Your task to perform on an android device: Go to notification settings Image 0: 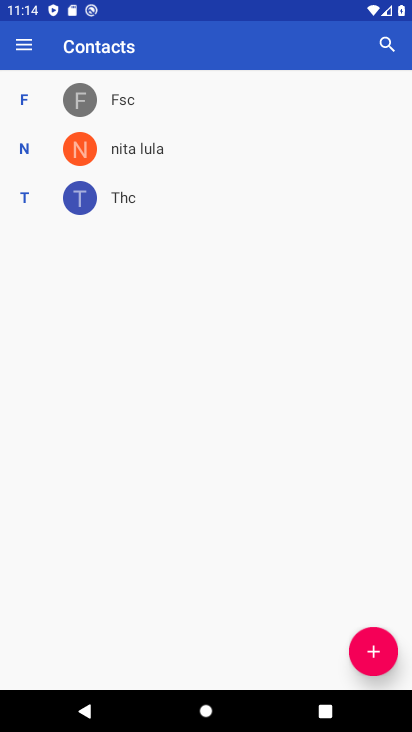
Step 0: press home button
Your task to perform on an android device: Go to notification settings Image 1: 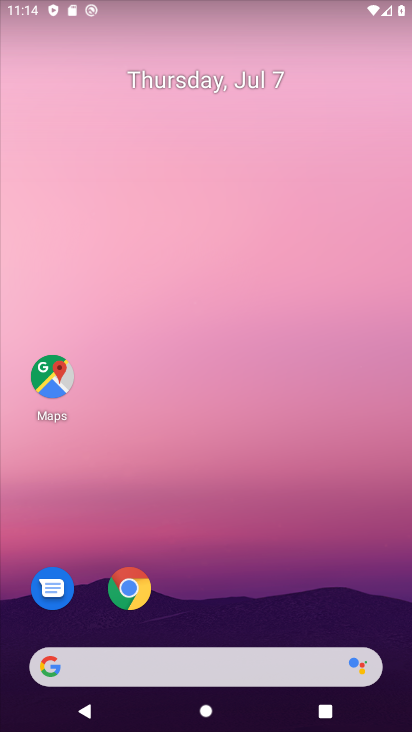
Step 1: drag from (244, 616) to (279, 84)
Your task to perform on an android device: Go to notification settings Image 2: 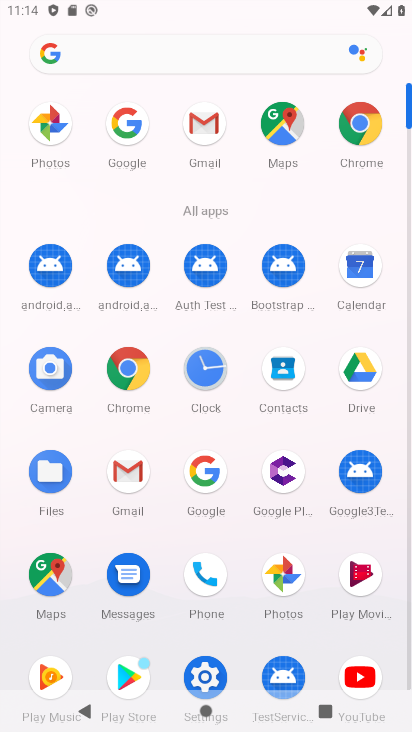
Step 2: click (212, 672)
Your task to perform on an android device: Go to notification settings Image 3: 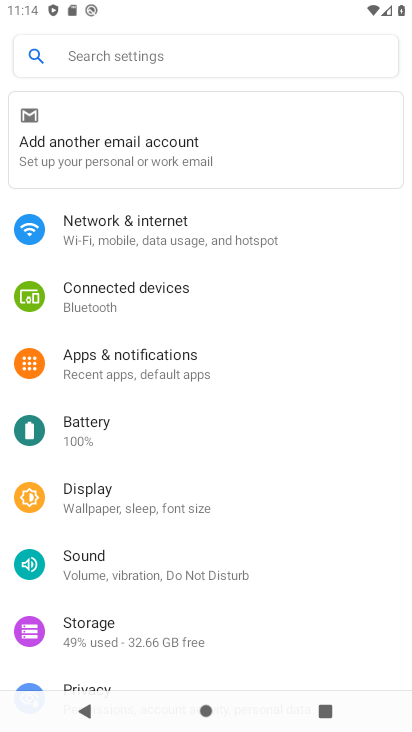
Step 3: click (141, 366)
Your task to perform on an android device: Go to notification settings Image 4: 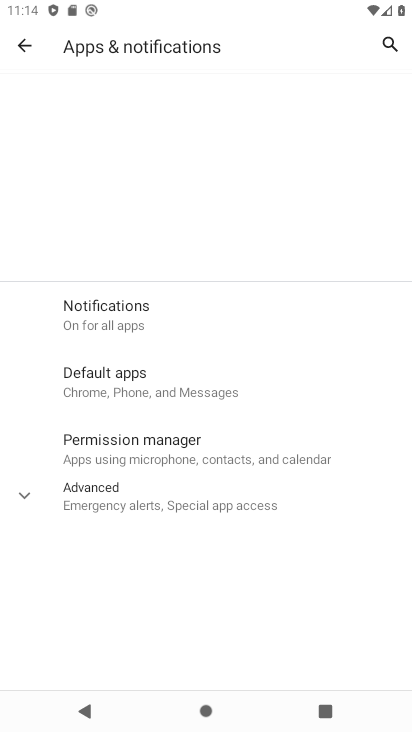
Step 4: click (131, 315)
Your task to perform on an android device: Go to notification settings Image 5: 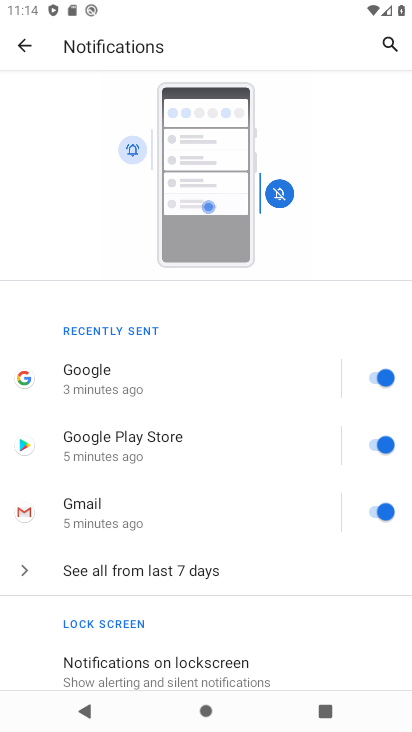
Step 5: drag from (166, 624) to (220, 148)
Your task to perform on an android device: Go to notification settings Image 6: 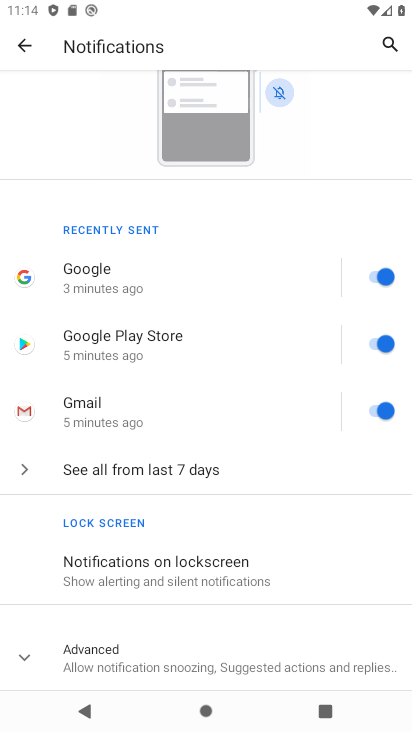
Step 6: click (110, 659)
Your task to perform on an android device: Go to notification settings Image 7: 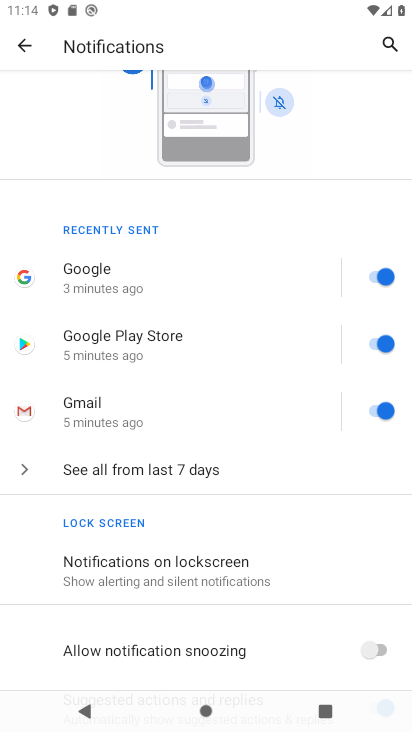
Step 7: task complete